Your task to perform on an android device: add a contact in the contacts app Image 0: 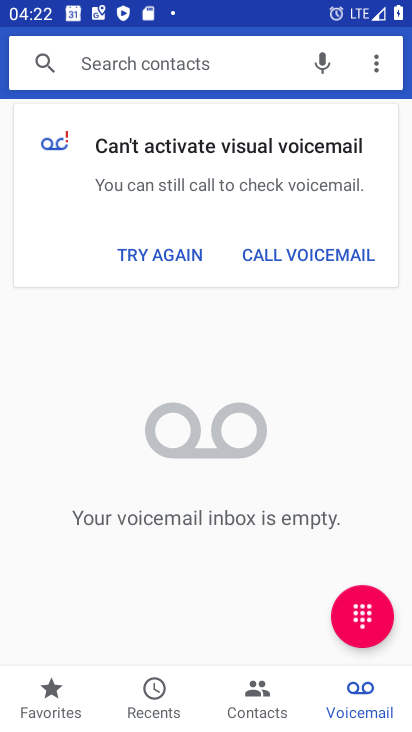
Step 0: drag from (224, 645) to (112, 119)
Your task to perform on an android device: add a contact in the contacts app Image 1: 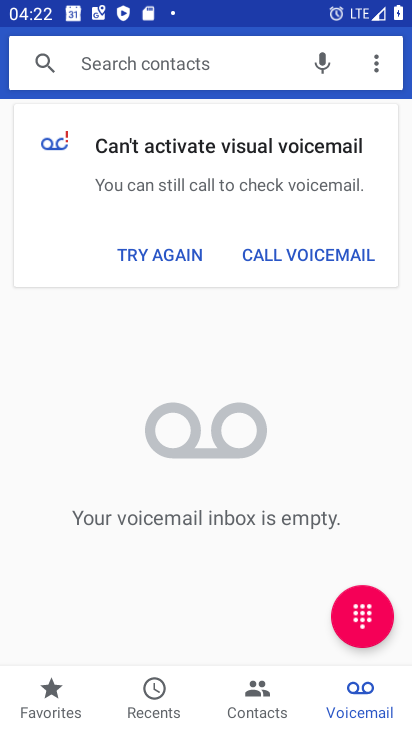
Step 1: press home button
Your task to perform on an android device: add a contact in the contacts app Image 2: 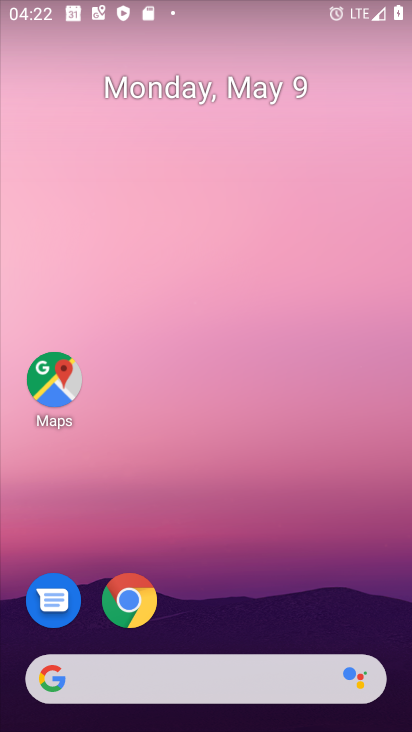
Step 2: drag from (248, 625) to (223, 42)
Your task to perform on an android device: add a contact in the contacts app Image 3: 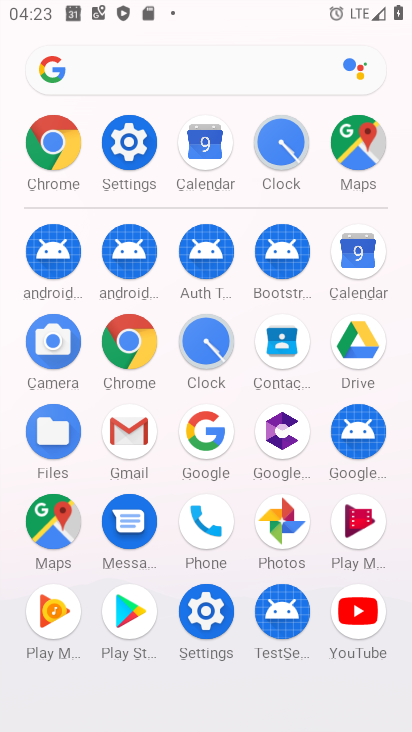
Step 3: click (276, 335)
Your task to perform on an android device: add a contact in the contacts app Image 4: 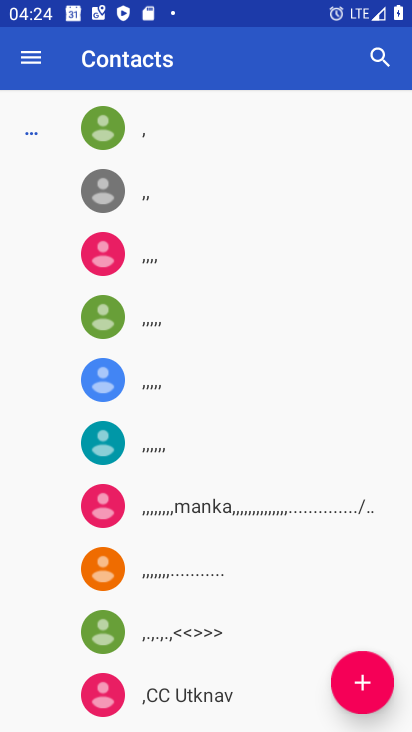
Step 4: click (365, 690)
Your task to perform on an android device: add a contact in the contacts app Image 5: 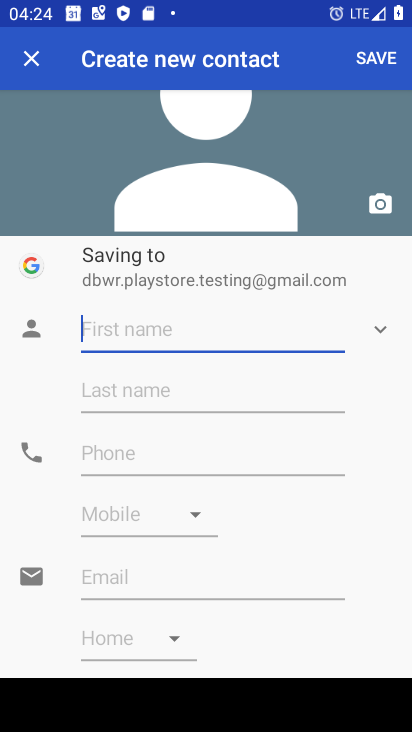
Step 5: type "fdgffhgg"
Your task to perform on an android device: add a contact in the contacts app Image 6: 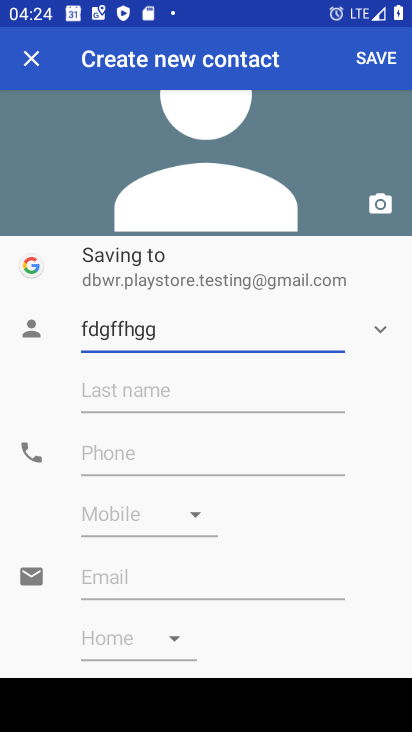
Step 6: click (149, 464)
Your task to perform on an android device: add a contact in the contacts app Image 7: 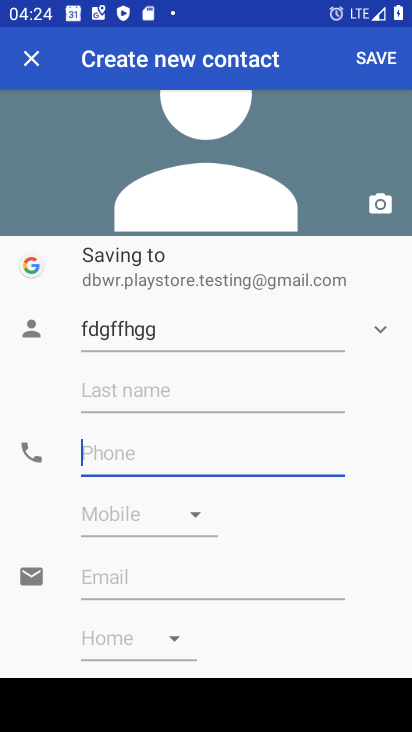
Step 7: type "67575788"
Your task to perform on an android device: add a contact in the contacts app Image 8: 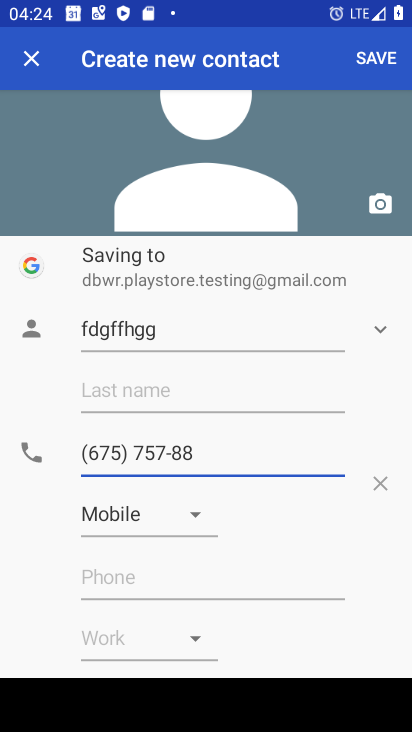
Step 8: click (378, 67)
Your task to perform on an android device: add a contact in the contacts app Image 9: 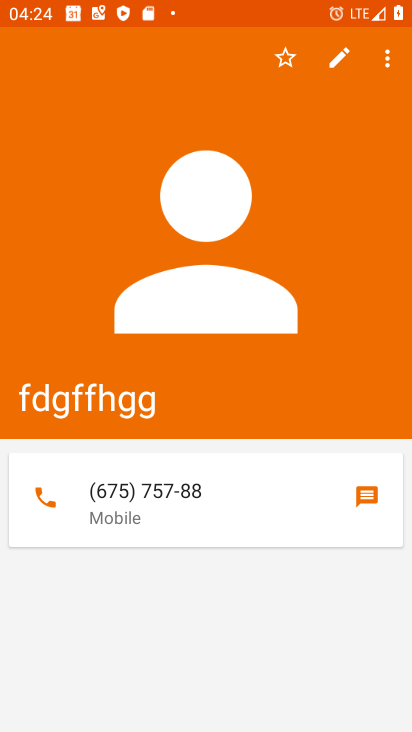
Step 9: task complete